Your task to perform on an android device: set the stopwatch Image 0: 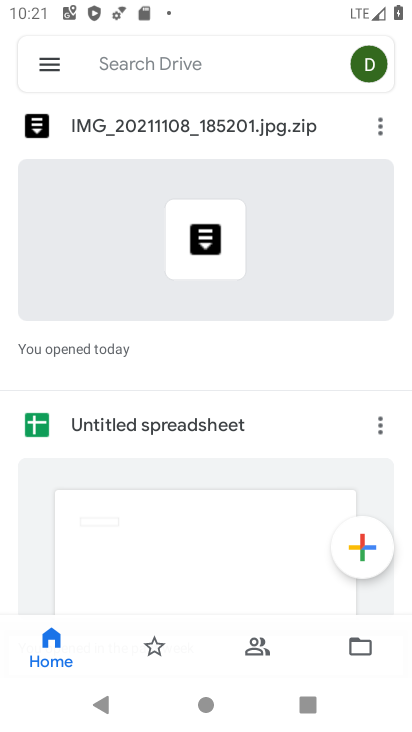
Step 0: drag from (155, 522) to (217, 13)
Your task to perform on an android device: set the stopwatch Image 1: 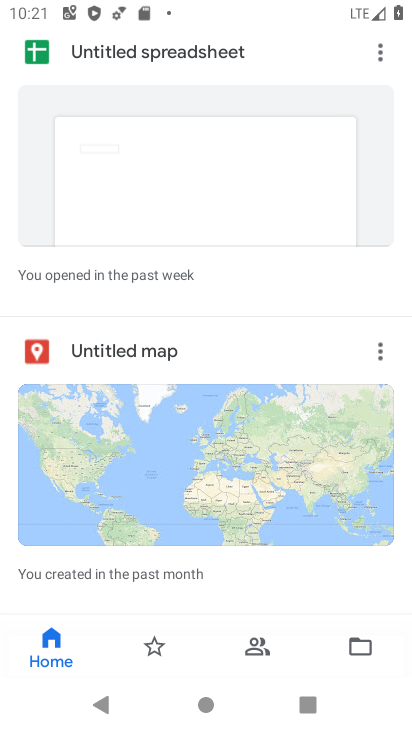
Step 1: press home button
Your task to perform on an android device: set the stopwatch Image 2: 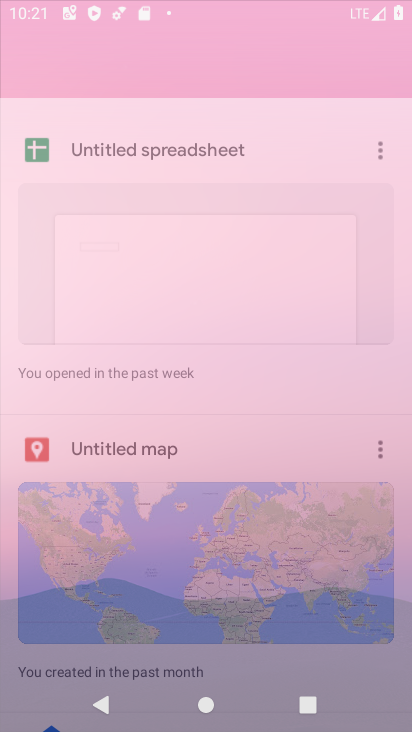
Step 2: drag from (282, 501) to (279, 21)
Your task to perform on an android device: set the stopwatch Image 3: 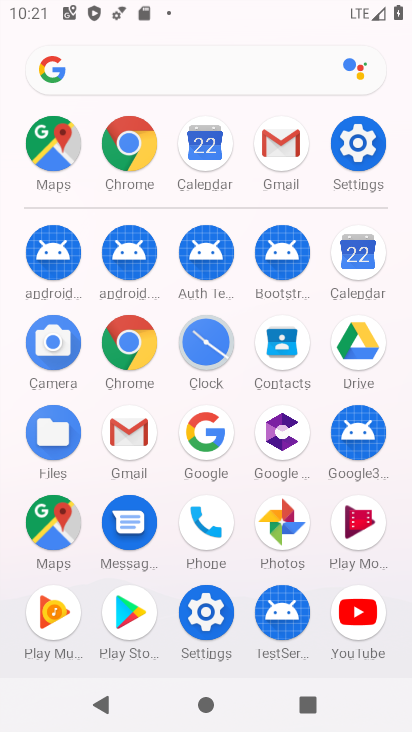
Step 3: click (198, 339)
Your task to perform on an android device: set the stopwatch Image 4: 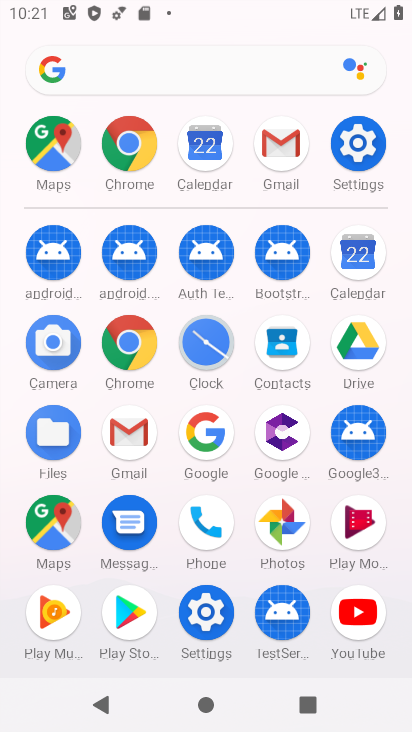
Step 4: click (198, 339)
Your task to perform on an android device: set the stopwatch Image 5: 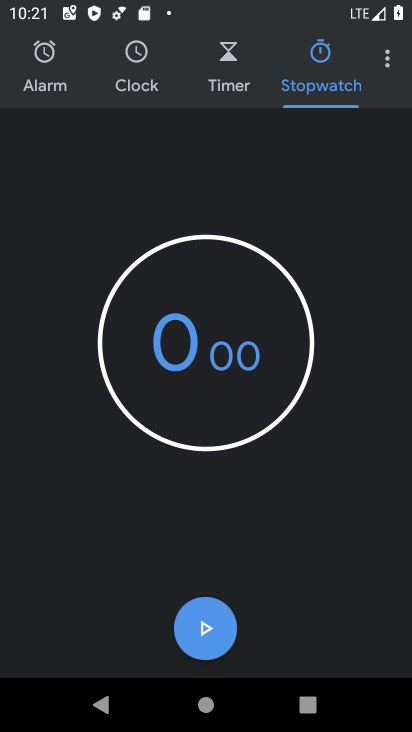
Step 5: click (291, 80)
Your task to perform on an android device: set the stopwatch Image 6: 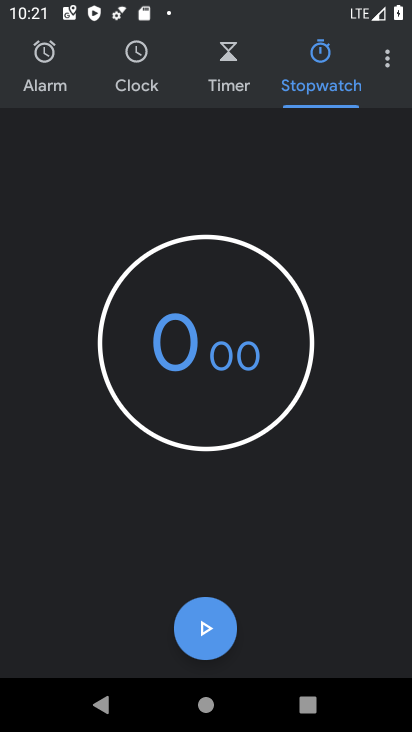
Step 6: click (190, 653)
Your task to perform on an android device: set the stopwatch Image 7: 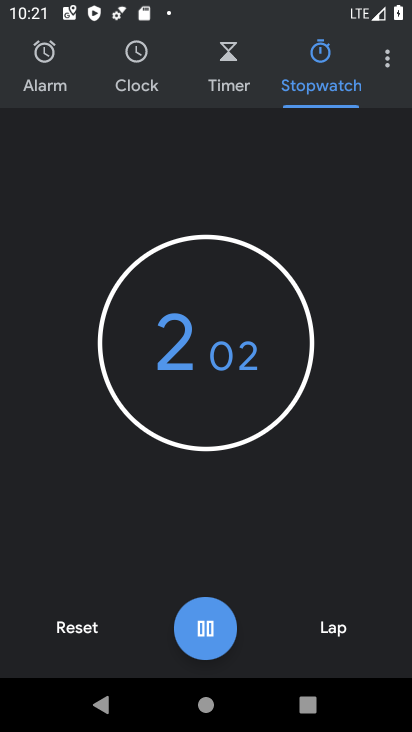
Step 7: task complete